Your task to perform on an android device: Open Youtube and go to "Your channel" Image 0: 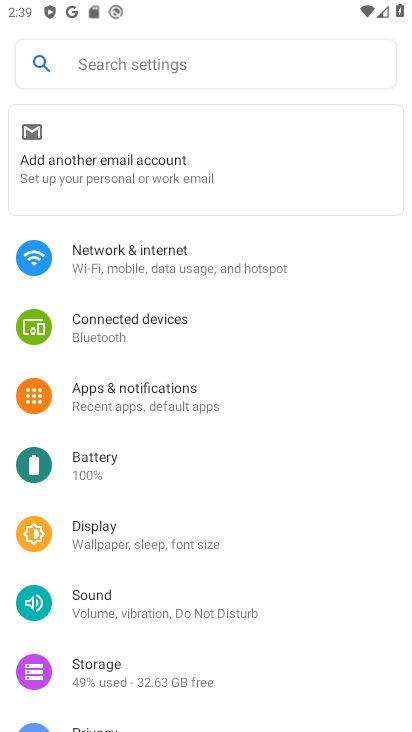
Step 0: press home button
Your task to perform on an android device: Open Youtube and go to "Your channel" Image 1: 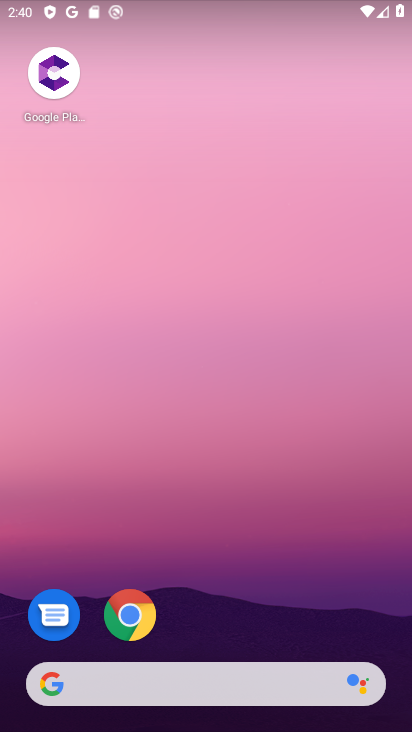
Step 1: drag from (241, 683) to (349, 327)
Your task to perform on an android device: Open Youtube and go to "Your channel" Image 2: 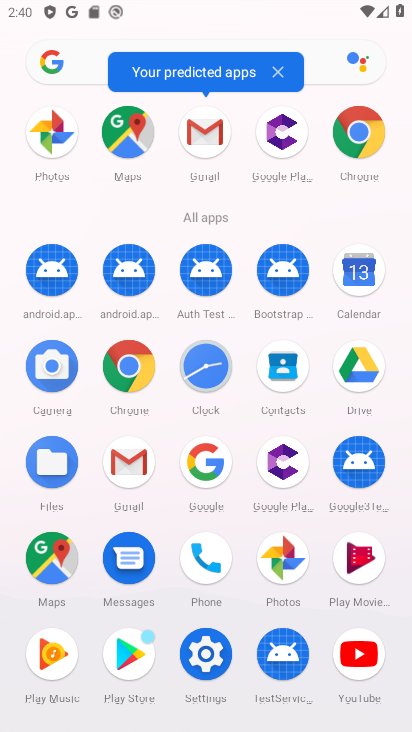
Step 2: click (356, 649)
Your task to perform on an android device: Open Youtube and go to "Your channel" Image 3: 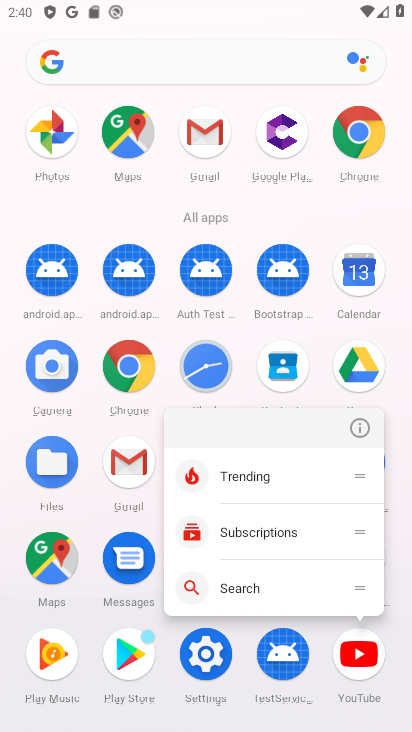
Step 3: click (360, 660)
Your task to perform on an android device: Open Youtube and go to "Your channel" Image 4: 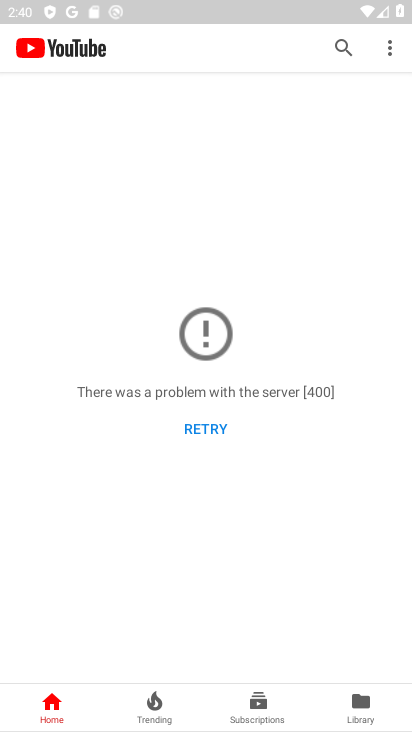
Step 4: click (218, 431)
Your task to perform on an android device: Open Youtube and go to "Your channel" Image 5: 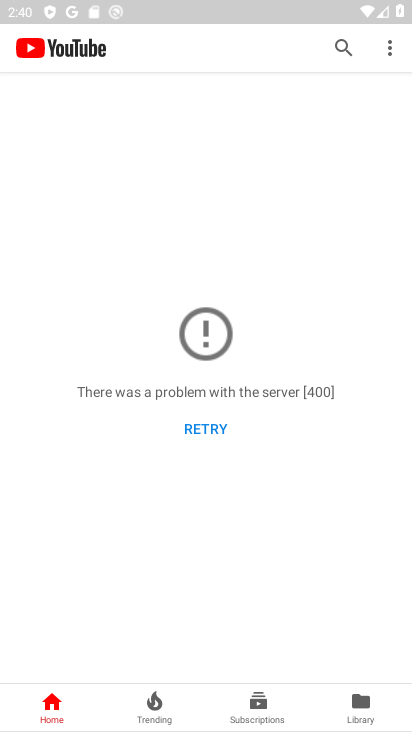
Step 5: click (204, 431)
Your task to perform on an android device: Open Youtube and go to "Your channel" Image 6: 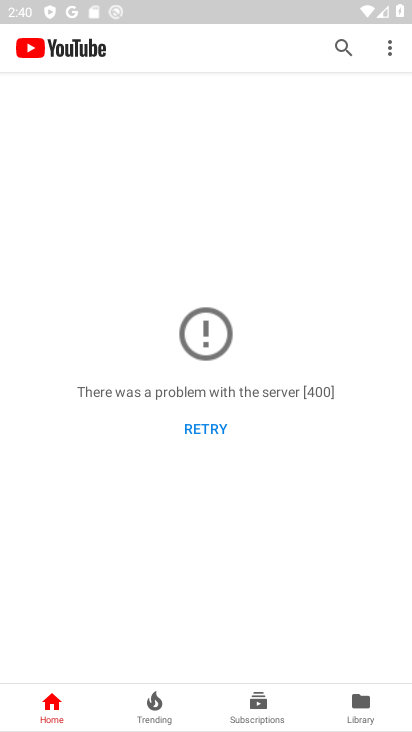
Step 6: task complete